Your task to perform on an android device: Is it going to rain this weekend? Image 0: 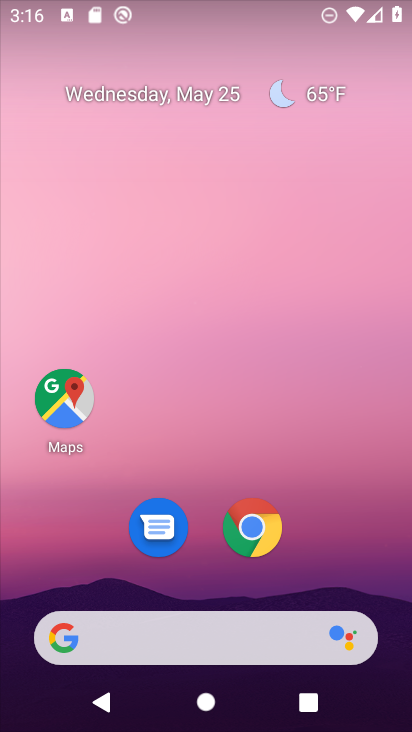
Step 0: drag from (182, 672) to (216, 1)
Your task to perform on an android device: Is it going to rain this weekend? Image 1: 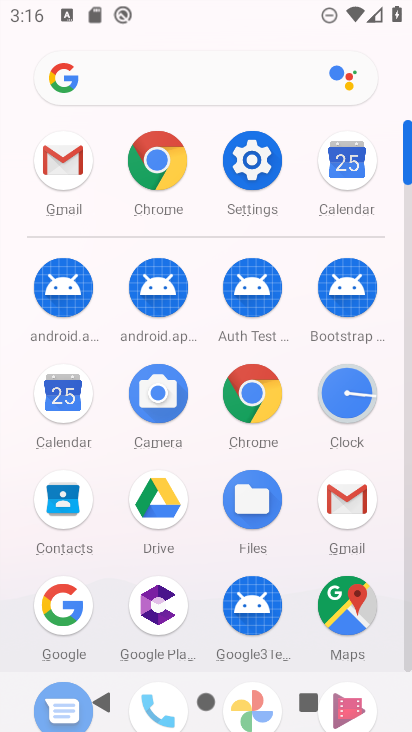
Step 1: click (242, 155)
Your task to perform on an android device: Is it going to rain this weekend? Image 2: 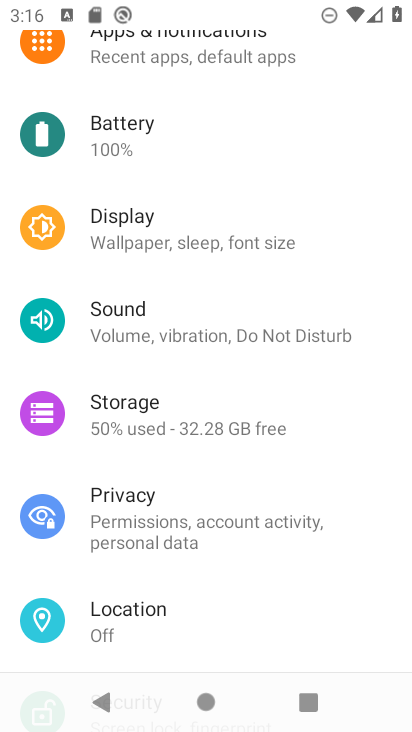
Step 2: click (244, 326)
Your task to perform on an android device: Is it going to rain this weekend? Image 3: 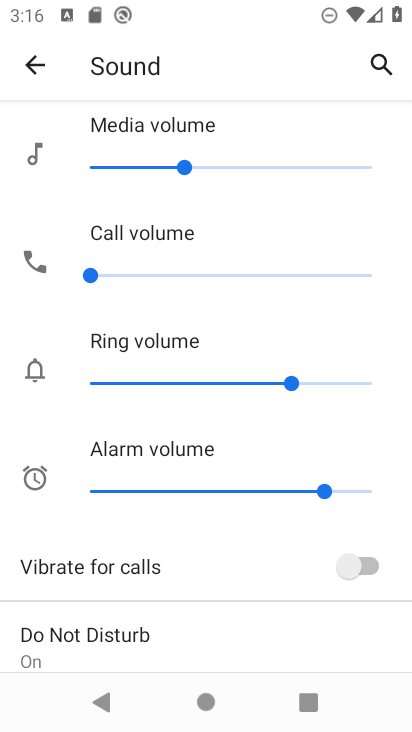
Step 3: press home button
Your task to perform on an android device: Is it going to rain this weekend? Image 4: 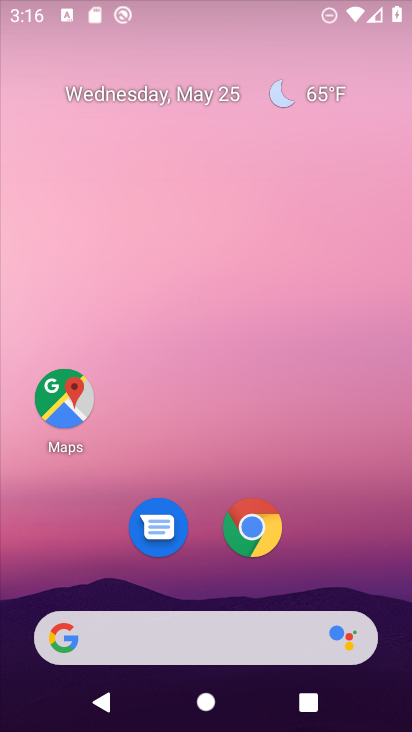
Step 4: drag from (216, 650) to (249, 15)
Your task to perform on an android device: Is it going to rain this weekend? Image 5: 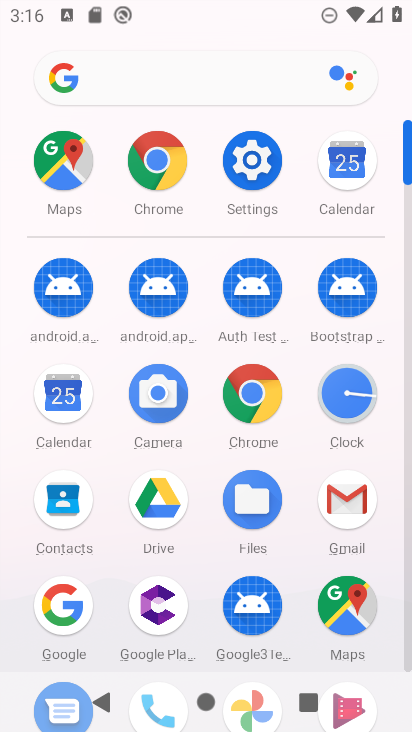
Step 5: press home button
Your task to perform on an android device: Is it going to rain this weekend? Image 6: 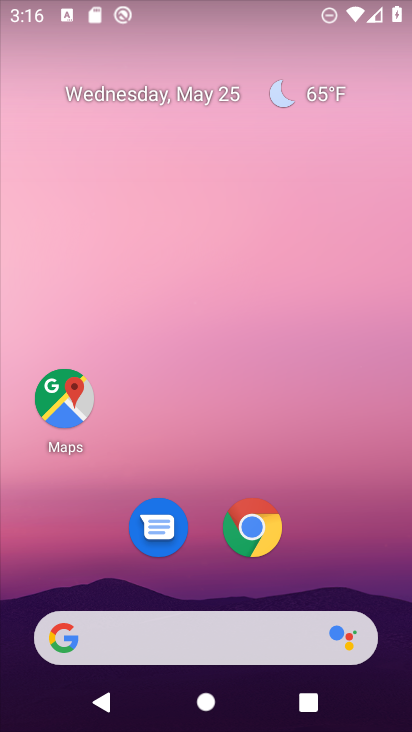
Step 6: drag from (30, 206) to (387, 269)
Your task to perform on an android device: Is it going to rain this weekend? Image 7: 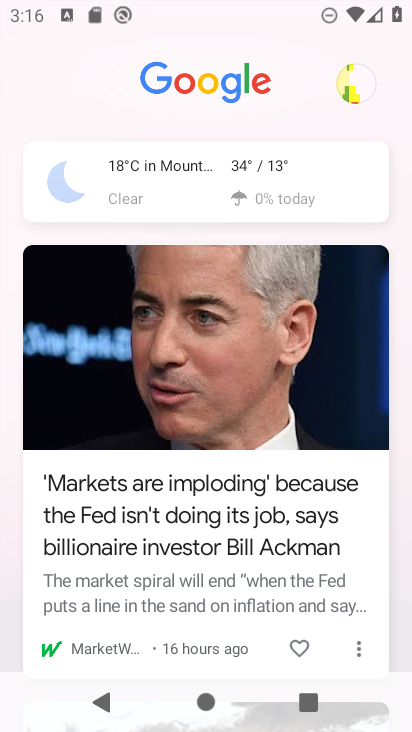
Step 7: click (173, 187)
Your task to perform on an android device: Is it going to rain this weekend? Image 8: 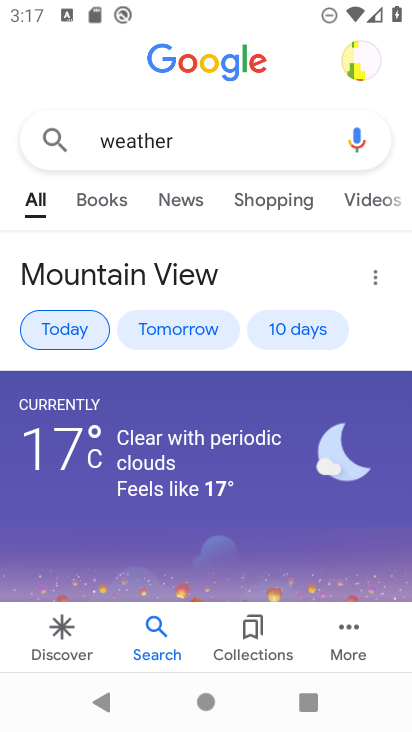
Step 8: click (292, 334)
Your task to perform on an android device: Is it going to rain this weekend? Image 9: 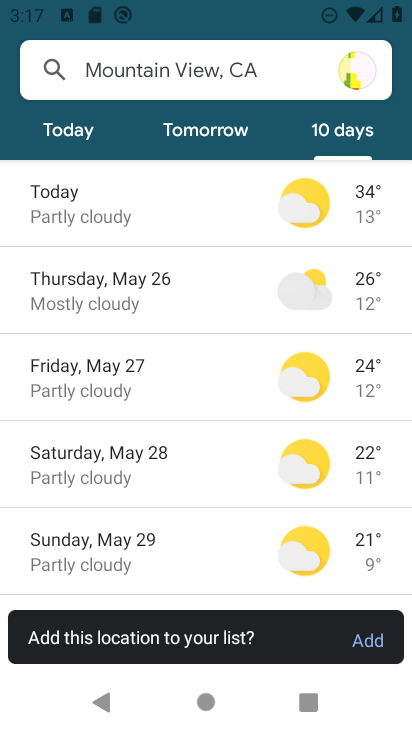
Step 9: task complete